Your task to perform on an android device: Open settings Image 0: 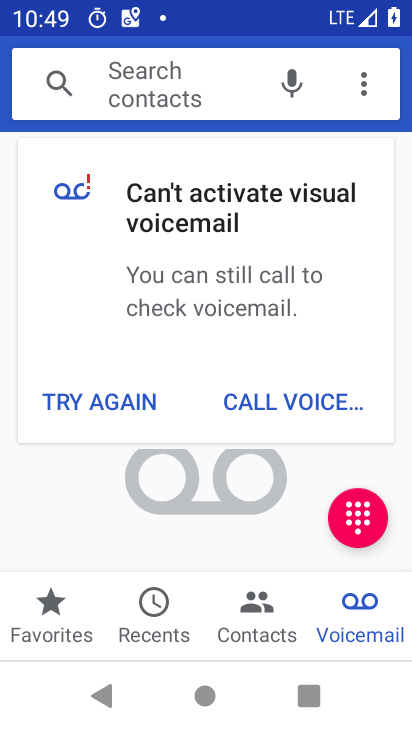
Step 0: press home button
Your task to perform on an android device: Open settings Image 1: 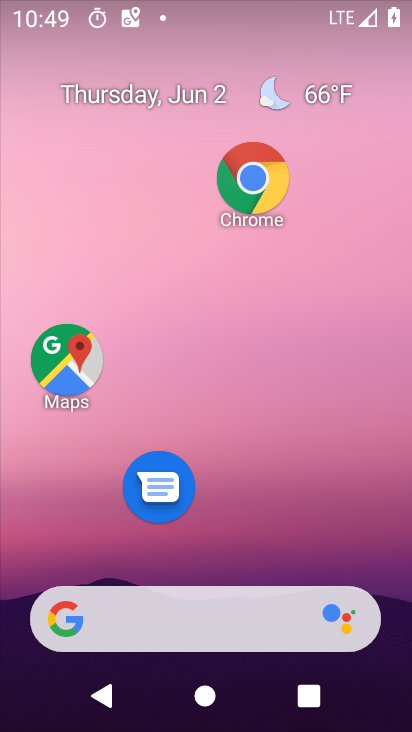
Step 1: drag from (233, 725) to (224, 85)
Your task to perform on an android device: Open settings Image 2: 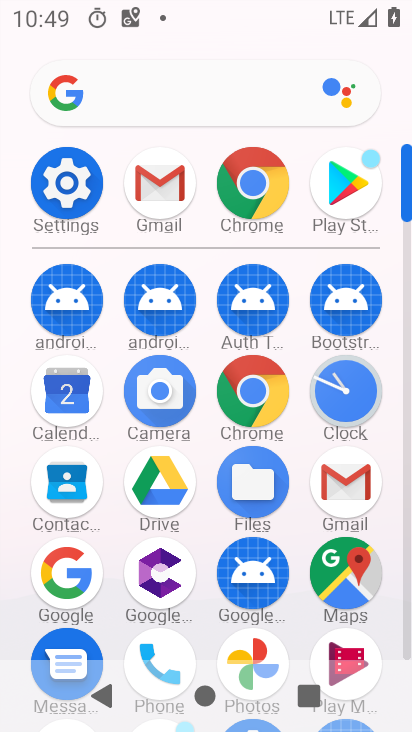
Step 2: click (62, 190)
Your task to perform on an android device: Open settings Image 3: 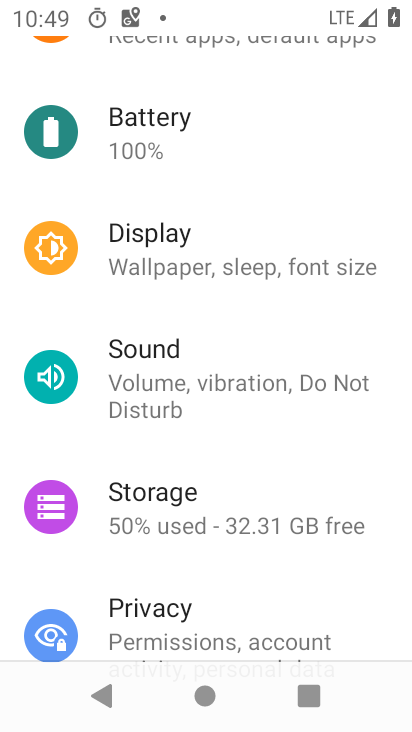
Step 3: task complete